Your task to perform on an android device: Is it going to rain tomorrow? Image 0: 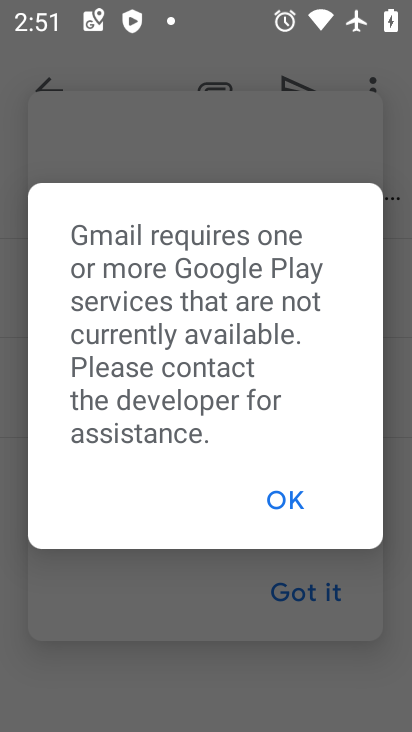
Step 0: press home button
Your task to perform on an android device: Is it going to rain tomorrow? Image 1: 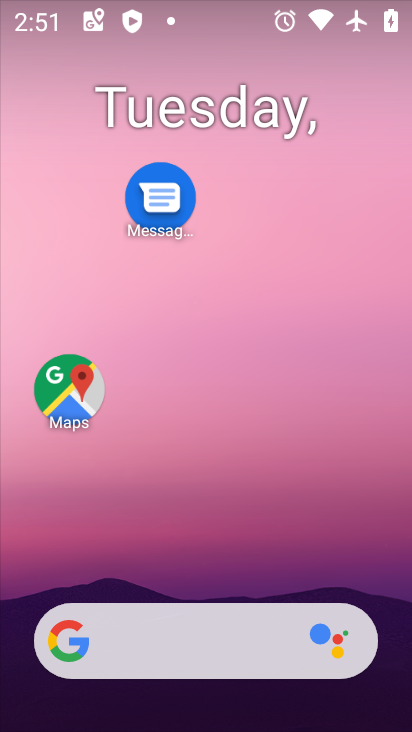
Step 1: drag from (189, 571) to (251, 135)
Your task to perform on an android device: Is it going to rain tomorrow? Image 2: 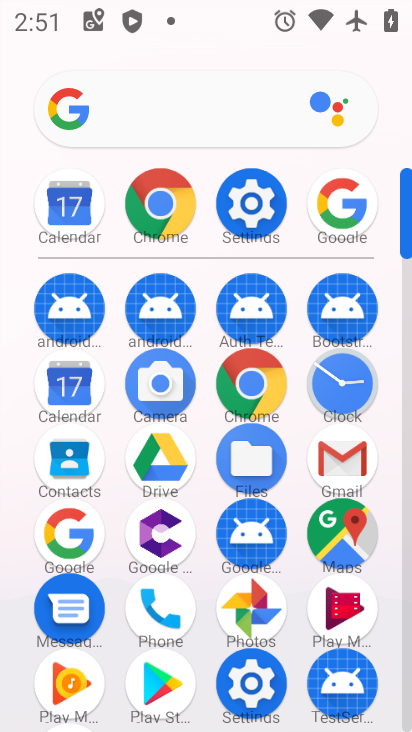
Step 2: click (330, 222)
Your task to perform on an android device: Is it going to rain tomorrow? Image 3: 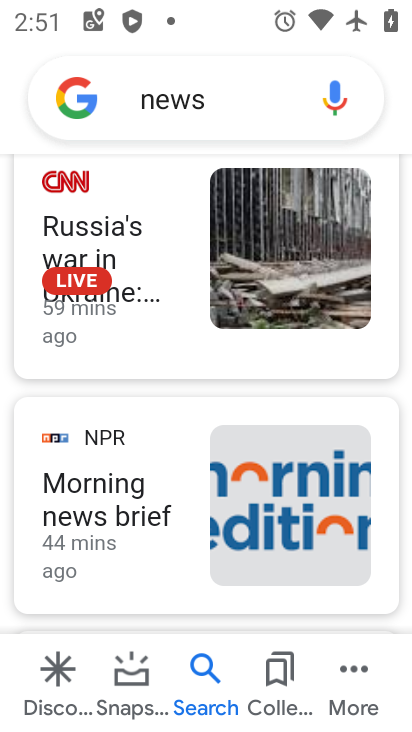
Step 3: drag from (194, 222) to (243, 591)
Your task to perform on an android device: Is it going to rain tomorrow? Image 4: 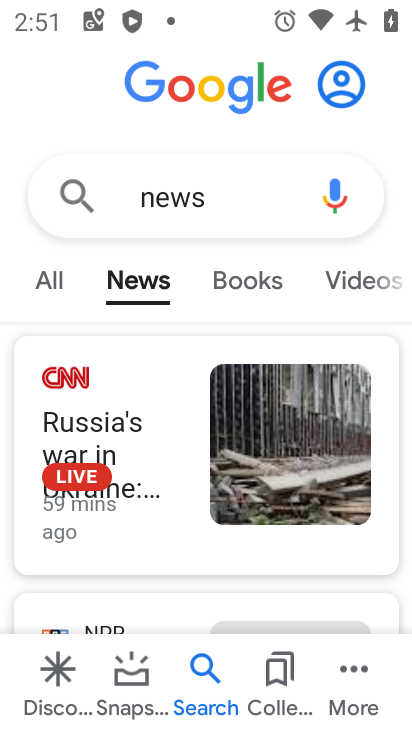
Step 4: click (41, 264)
Your task to perform on an android device: Is it going to rain tomorrow? Image 5: 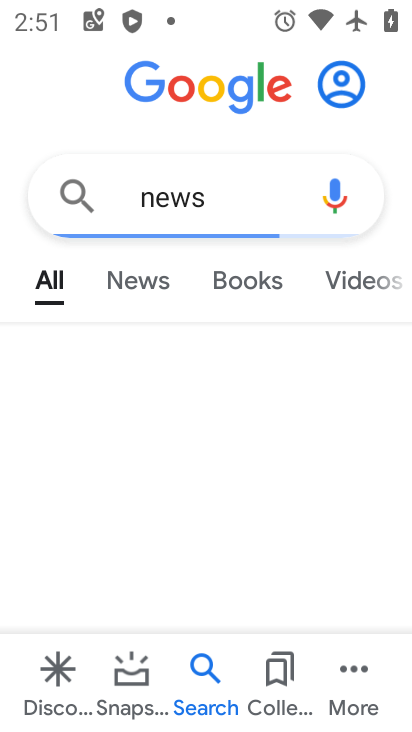
Step 5: click (214, 180)
Your task to perform on an android device: Is it going to rain tomorrow? Image 6: 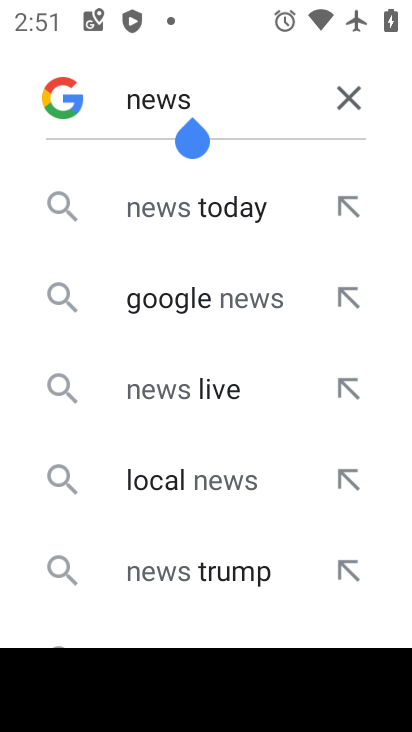
Step 6: click (340, 94)
Your task to perform on an android device: Is it going to rain tomorrow? Image 7: 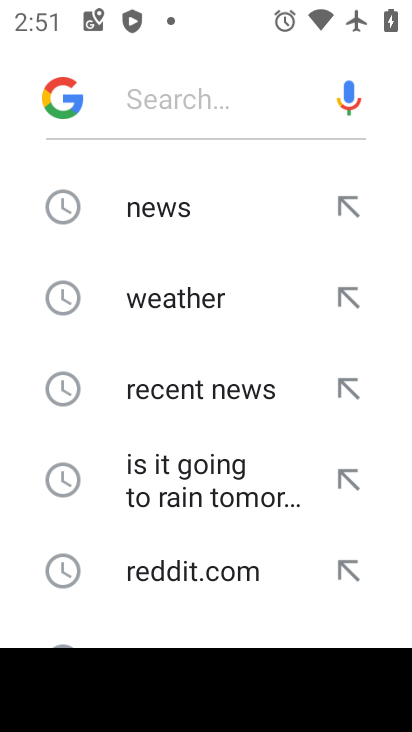
Step 7: click (179, 296)
Your task to perform on an android device: Is it going to rain tomorrow? Image 8: 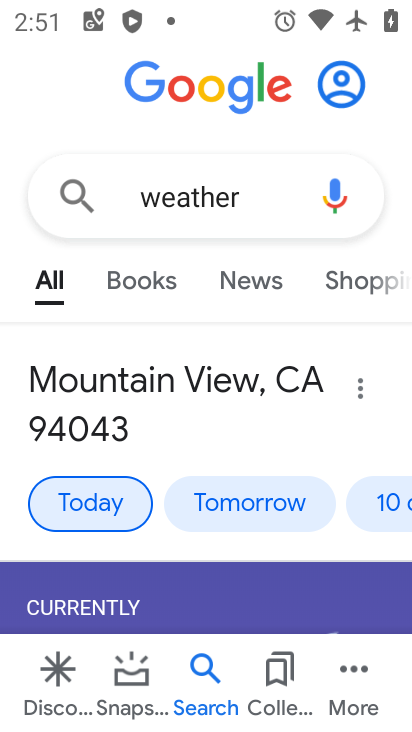
Step 8: drag from (197, 416) to (242, 201)
Your task to perform on an android device: Is it going to rain tomorrow? Image 9: 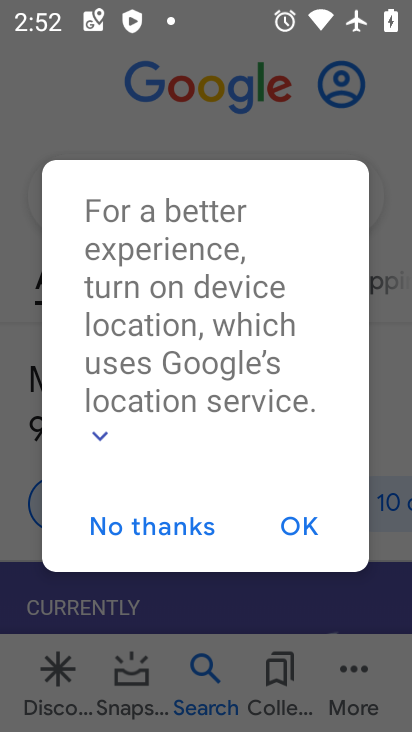
Step 9: click (285, 530)
Your task to perform on an android device: Is it going to rain tomorrow? Image 10: 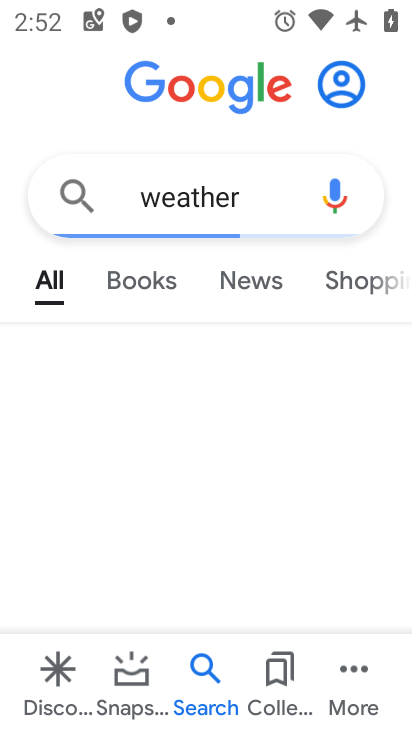
Step 10: drag from (239, 500) to (227, 349)
Your task to perform on an android device: Is it going to rain tomorrow? Image 11: 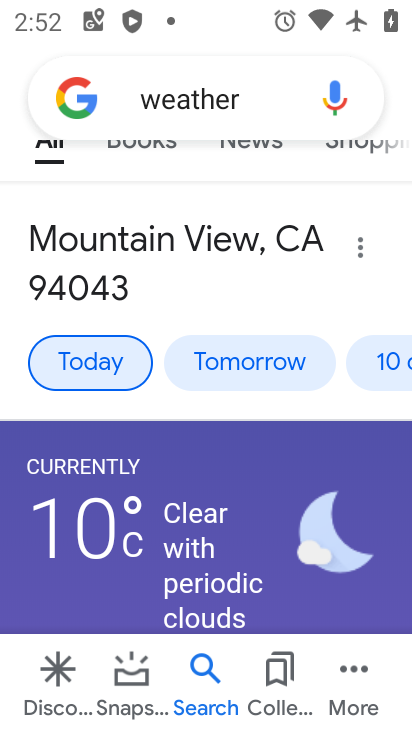
Step 11: click (219, 365)
Your task to perform on an android device: Is it going to rain tomorrow? Image 12: 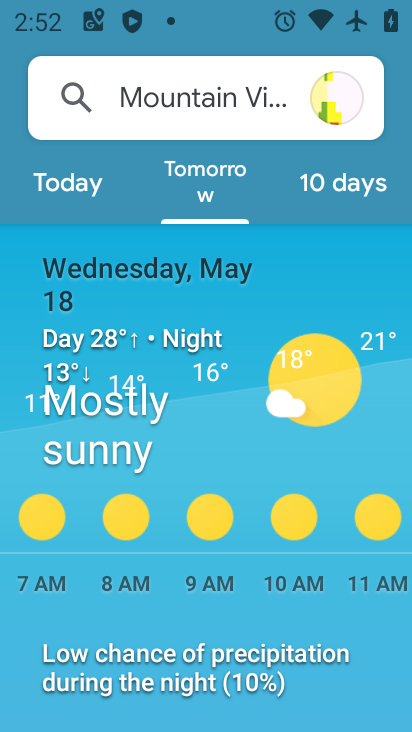
Step 12: task complete